Your task to perform on an android device: change timer sound Image 0: 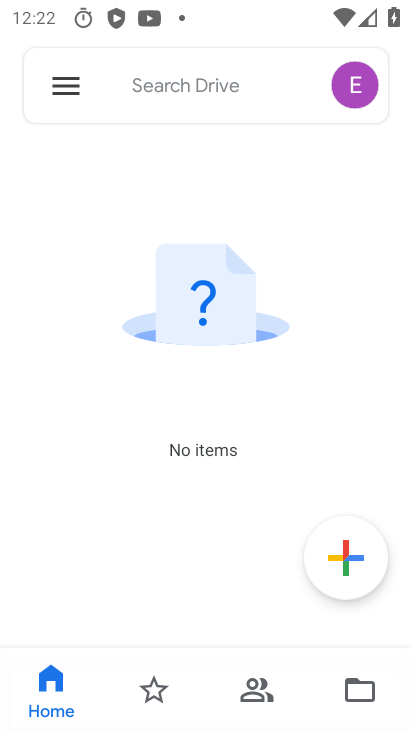
Step 0: press back button
Your task to perform on an android device: change timer sound Image 1: 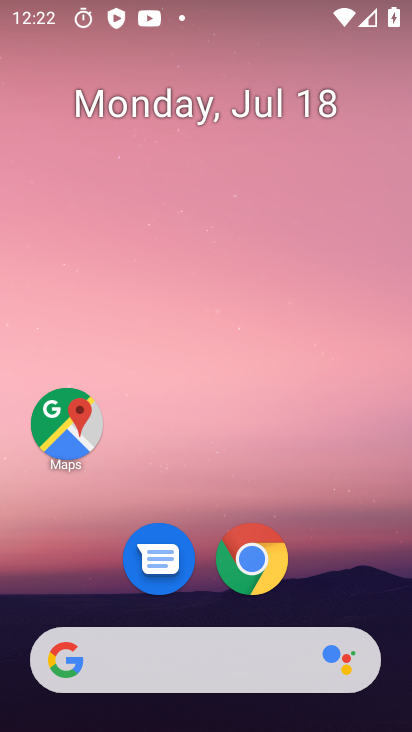
Step 1: drag from (173, 564) to (273, 1)
Your task to perform on an android device: change timer sound Image 2: 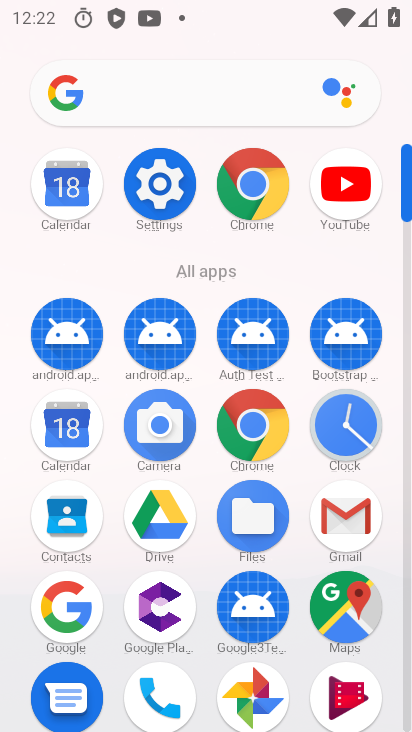
Step 2: click (357, 448)
Your task to perform on an android device: change timer sound Image 3: 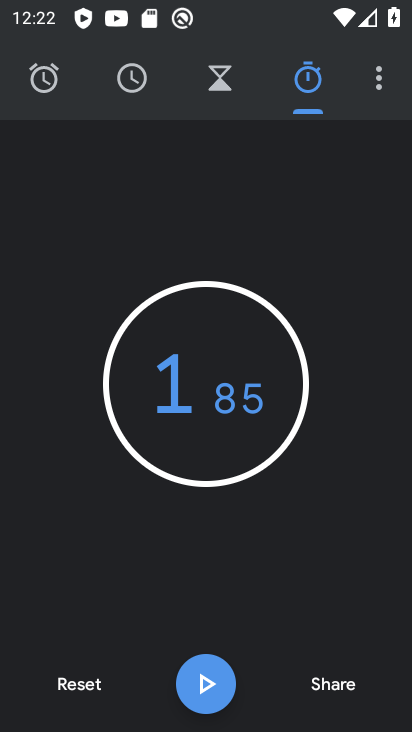
Step 3: click (385, 75)
Your task to perform on an android device: change timer sound Image 4: 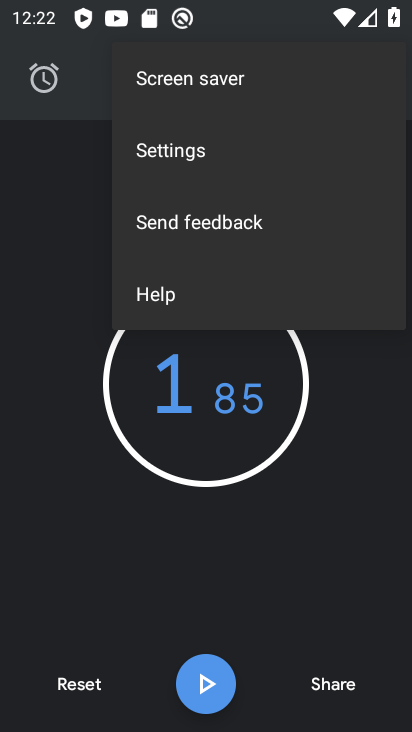
Step 4: click (223, 162)
Your task to perform on an android device: change timer sound Image 5: 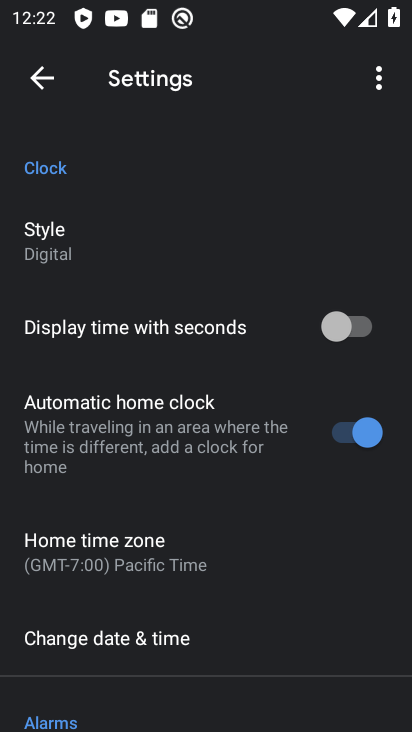
Step 5: drag from (134, 644) to (229, 161)
Your task to perform on an android device: change timer sound Image 6: 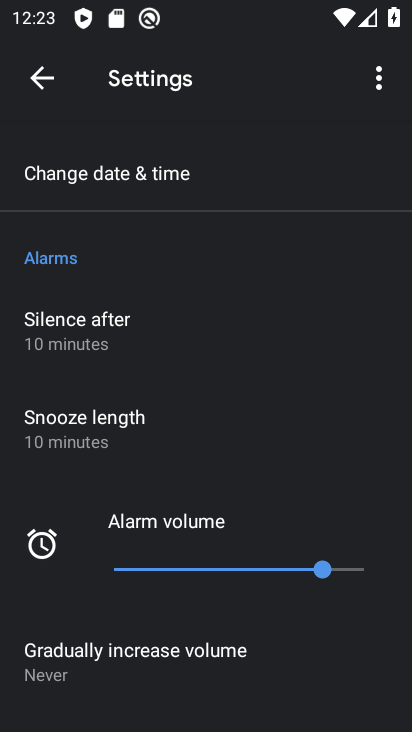
Step 6: drag from (175, 613) to (195, 159)
Your task to perform on an android device: change timer sound Image 7: 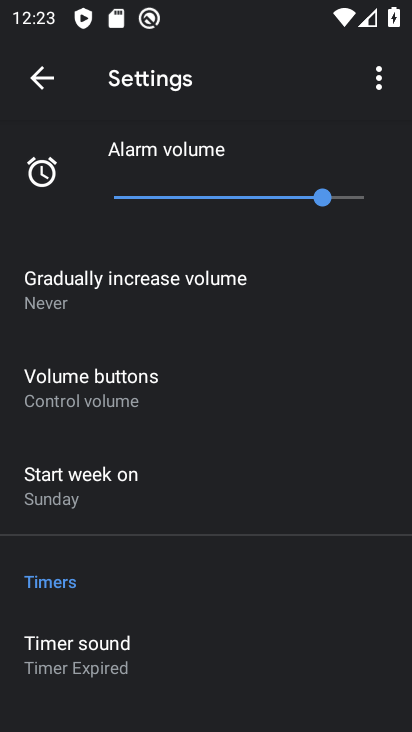
Step 7: click (60, 638)
Your task to perform on an android device: change timer sound Image 8: 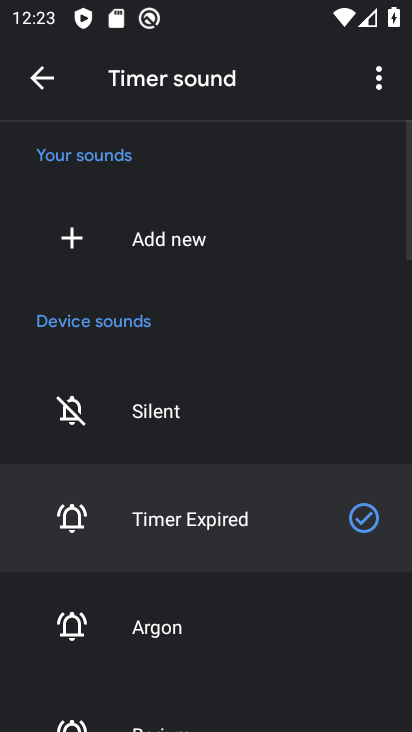
Step 8: click (144, 629)
Your task to perform on an android device: change timer sound Image 9: 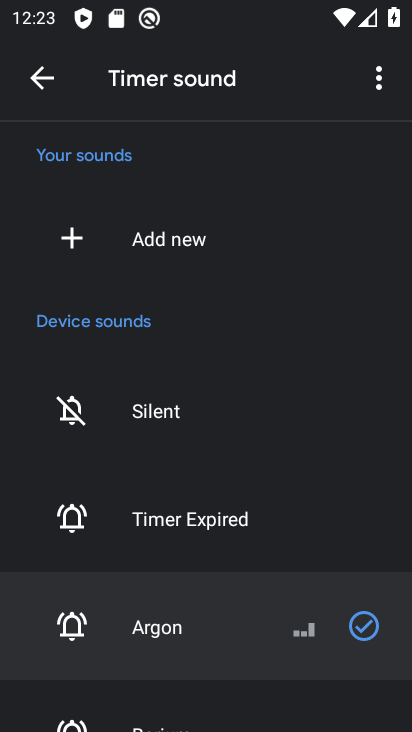
Step 9: task complete